Your task to perform on an android device: see sites visited before in the chrome app Image 0: 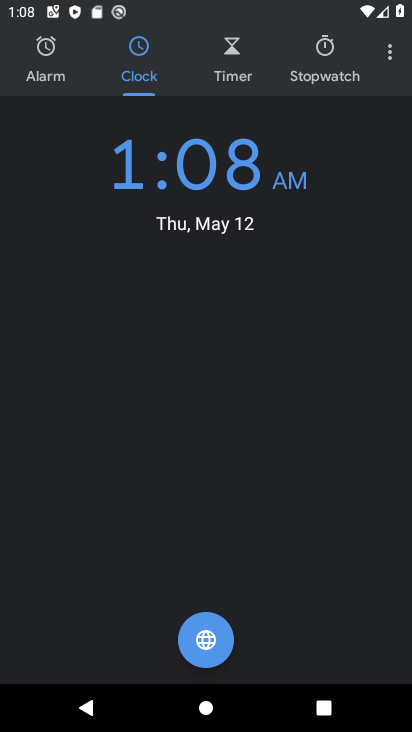
Step 0: click (393, 49)
Your task to perform on an android device: see sites visited before in the chrome app Image 1: 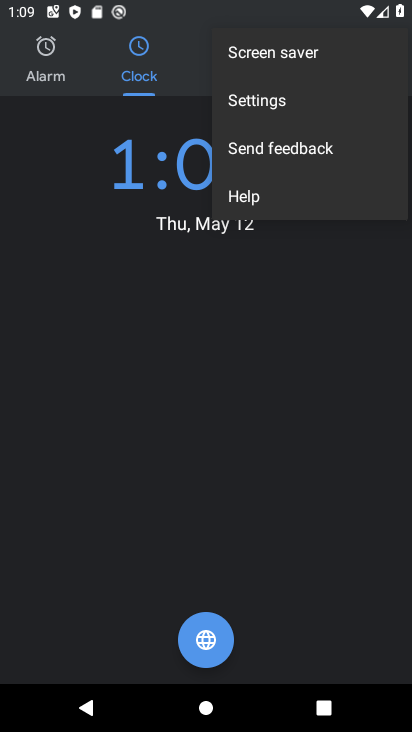
Step 1: press home button
Your task to perform on an android device: see sites visited before in the chrome app Image 2: 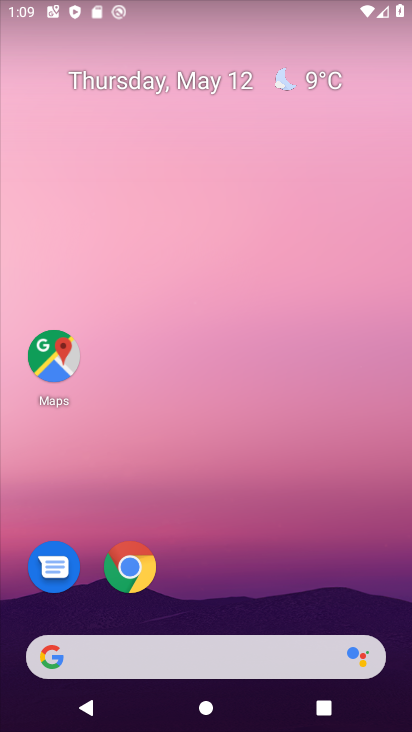
Step 2: click (123, 560)
Your task to perform on an android device: see sites visited before in the chrome app Image 3: 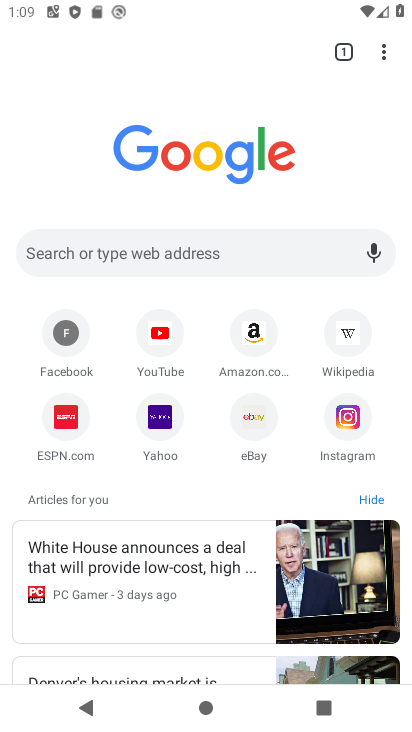
Step 3: click (383, 45)
Your task to perform on an android device: see sites visited before in the chrome app Image 4: 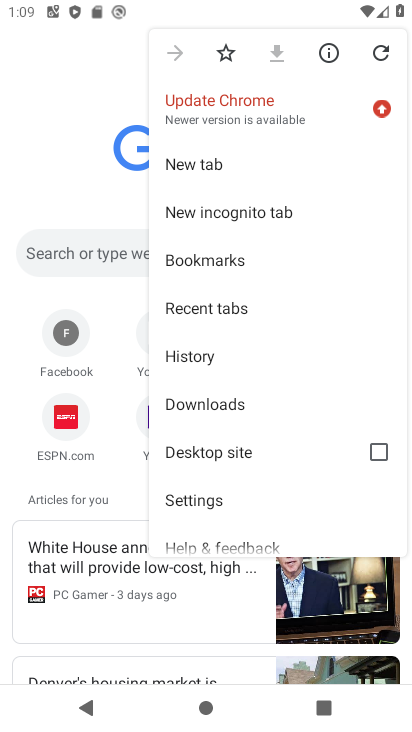
Step 4: click (227, 355)
Your task to perform on an android device: see sites visited before in the chrome app Image 5: 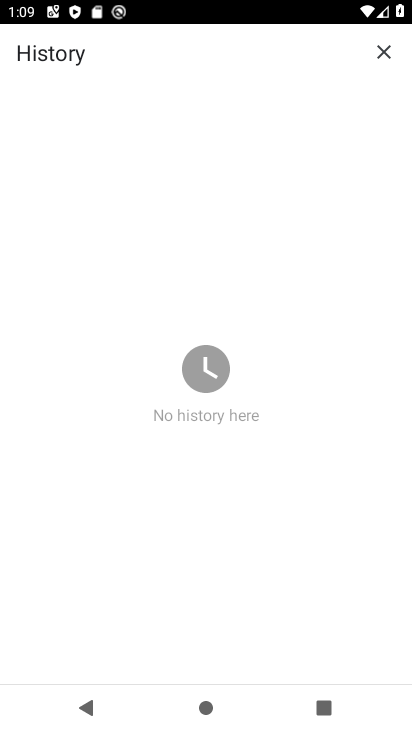
Step 5: task complete